Your task to perform on an android device: Set the phone to "Do not disturb". Image 0: 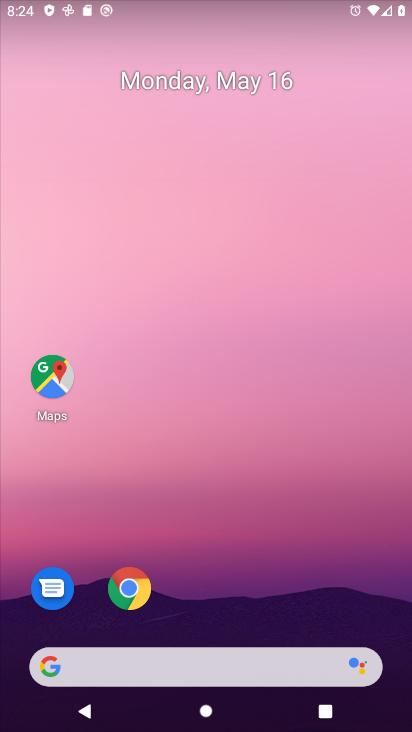
Step 0: press back button
Your task to perform on an android device: Set the phone to "Do not disturb". Image 1: 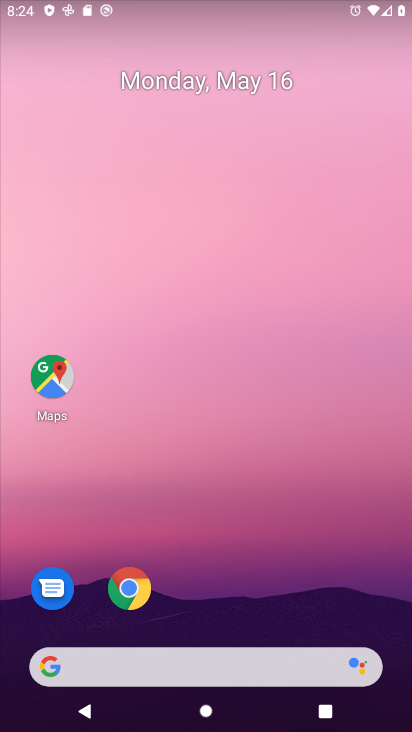
Step 1: drag from (356, 684) to (105, 220)
Your task to perform on an android device: Set the phone to "Do not disturb". Image 2: 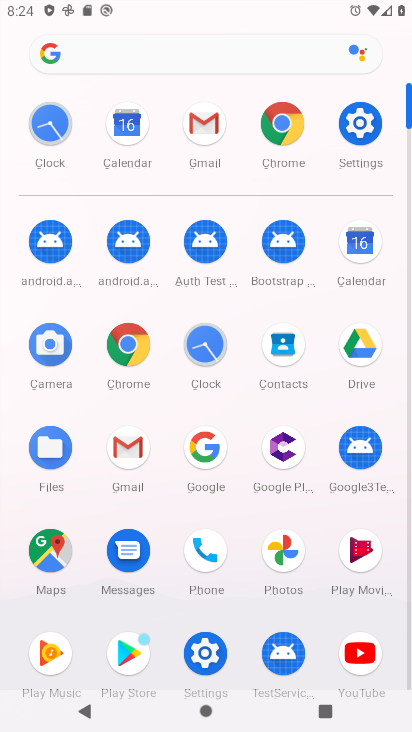
Step 2: click (352, 133)
Your task to perform on an android device: Set the phone to "Do not disturb". Image 3: 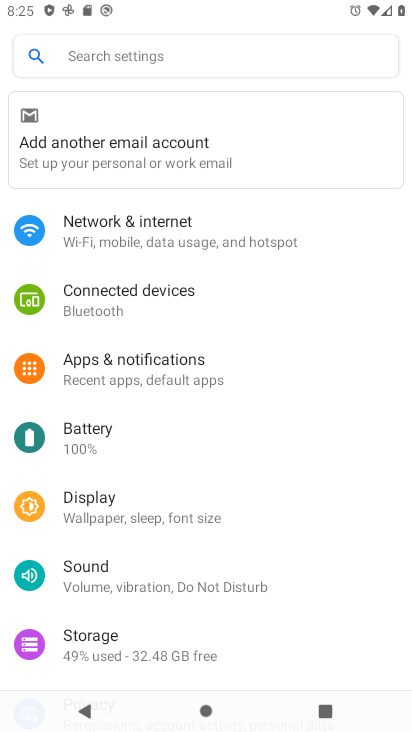
Step 3: click (162, 588)
Your task to perform on an android device: Set the phone to "Do not disturb". Image 4: 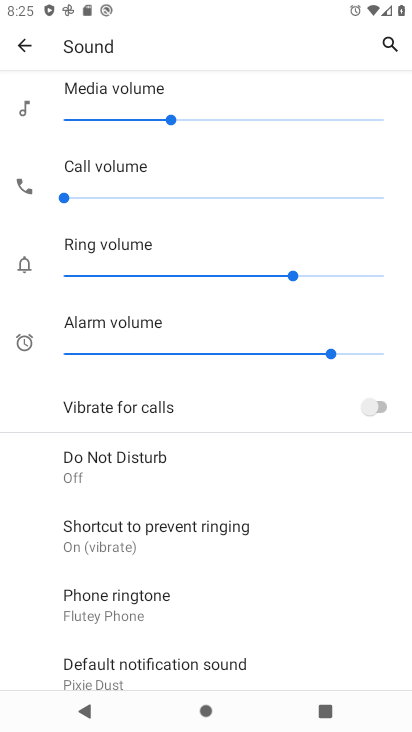
Step 4: click (108, 473)
Your task to perform on an android device: Set the phone to "Do not disturb". Image 5: 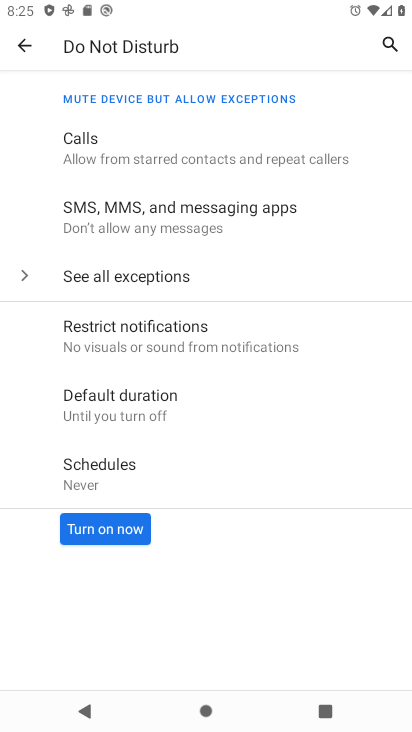
Step 5: click (111, 534)
Your task to perform on an android device: Set the phone to "Do not disturb". Image 6: 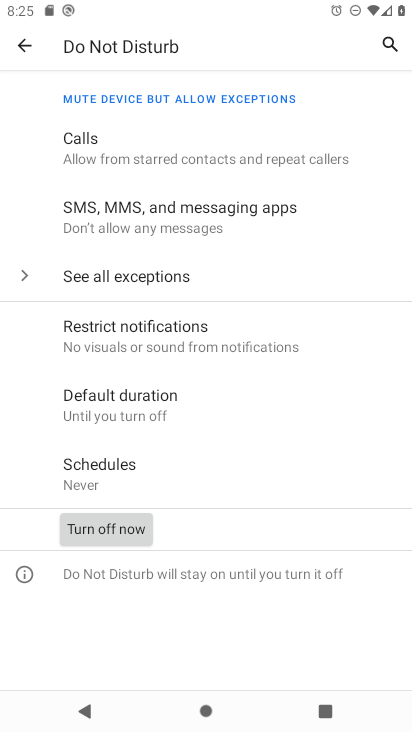
Step 6: task complete